Your task to perform on an android device: Open calendar and show me the fourth week of next month Image 0: 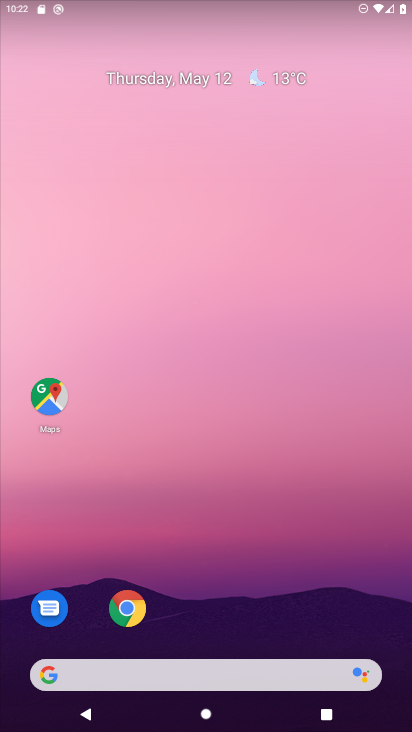
Step 0: drag from (260, 605) to (275, 180)
Your task to perform on an android device: Open calendar and show me the fourth week of next month Image 1: 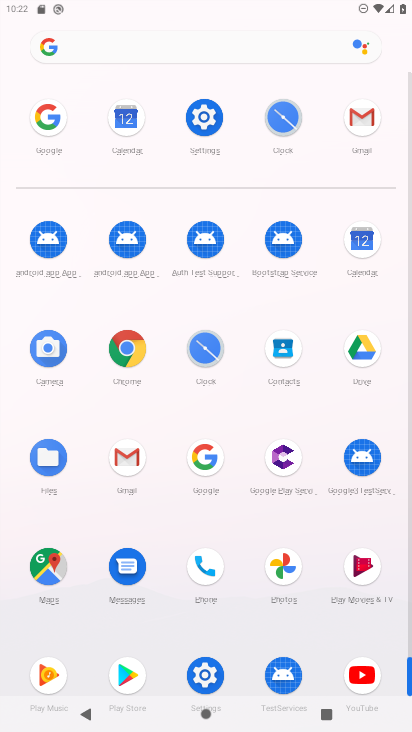
Step 1: click (362, 244)
Your task to perform on an android device: Open calendar and show me the fourth week of next month Image 2: 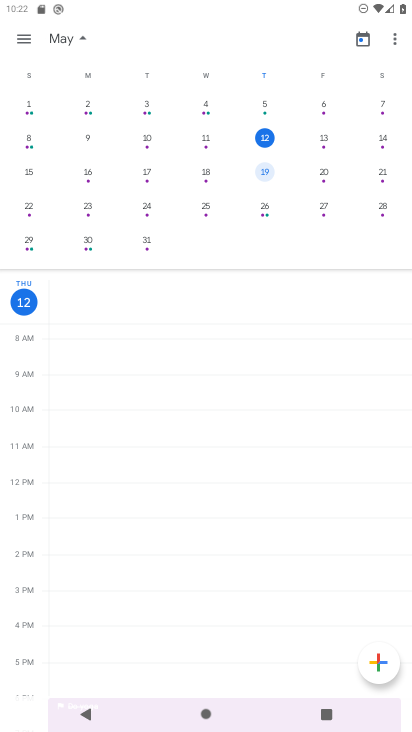
Step 2: click (83, 43)
Your task to perform on an android device: Open calendar and show me the fourth week of next month Image 3: 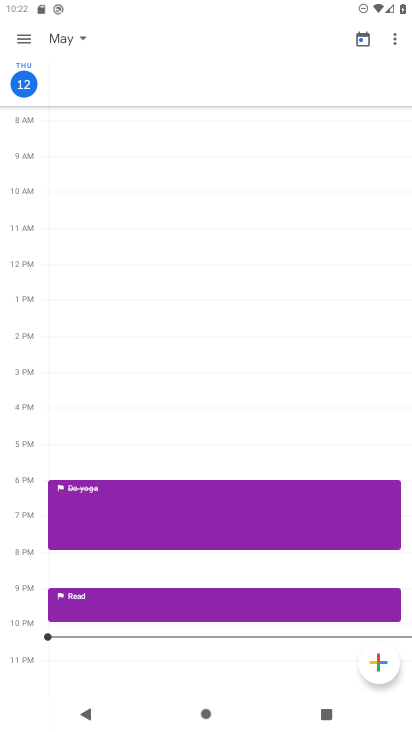
Step 3: click (83, 43)
Your task to perform on an android device: Open calendar and show me the fourth week of next month Image 4: 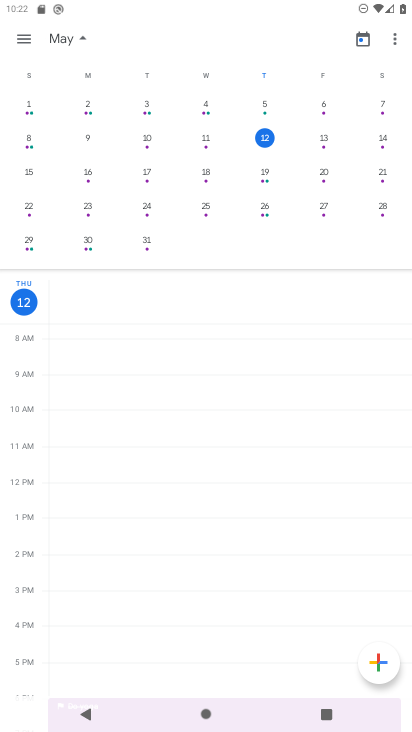
Step 4: drag from (367, 255) to (0, 229)
Your task to perform on an android device: Open calendar and show me the fourth week of next month Image 5: 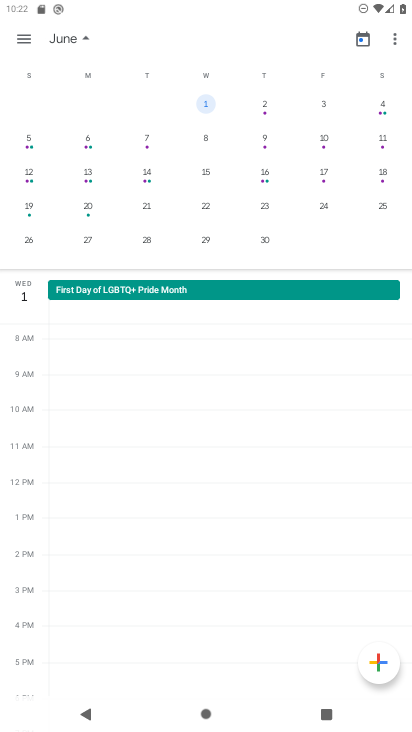
Step 5: click (256, 209)
Your task to perform on an android device: Open calendar and show me the fourth week of next month Image 6: 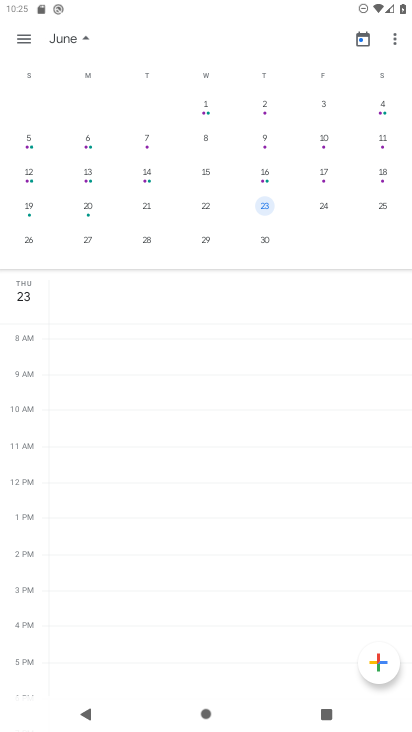
Step 6: task complete